Your task to perform on an android device: search for starred emails in the gmail app Image 0: 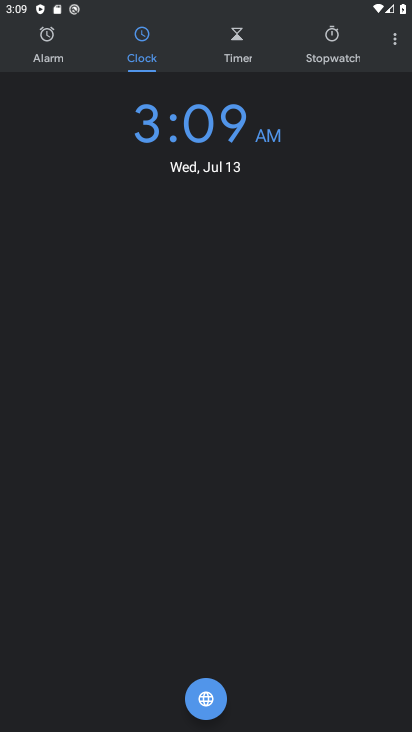
Step 0: press home button
Your task to perform on an android device: search for starred emails in the gmail app Image 1: 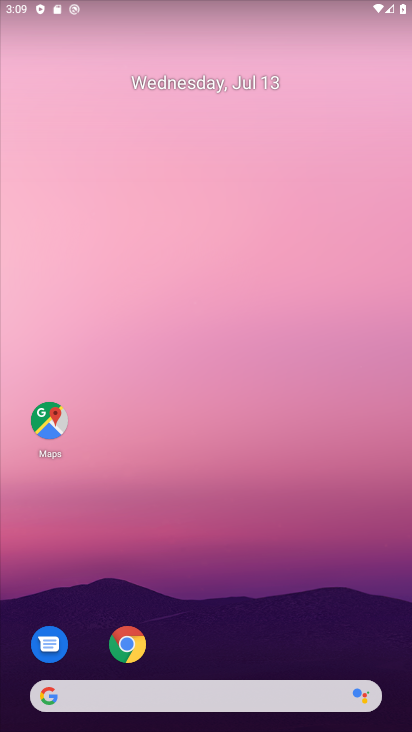
Step 1: drag from (227, 645) to (184, 250)
Your task to perform on an android device: search for starred emails in the gmail app Image 2: 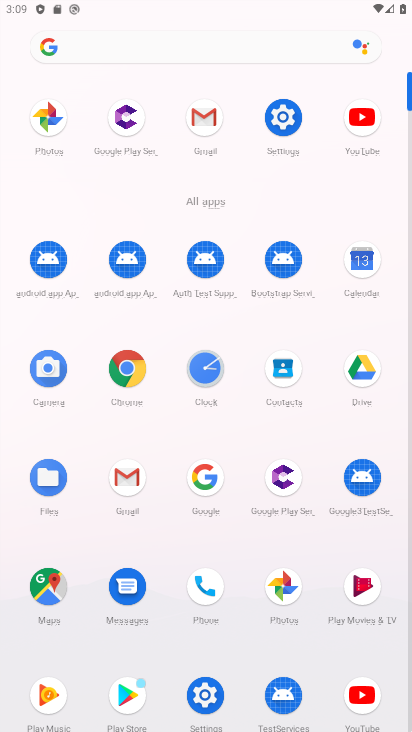
Step 2: click (196, 131)
Your task to perform on an android device: search for starred emails in the gmail app Image 3: 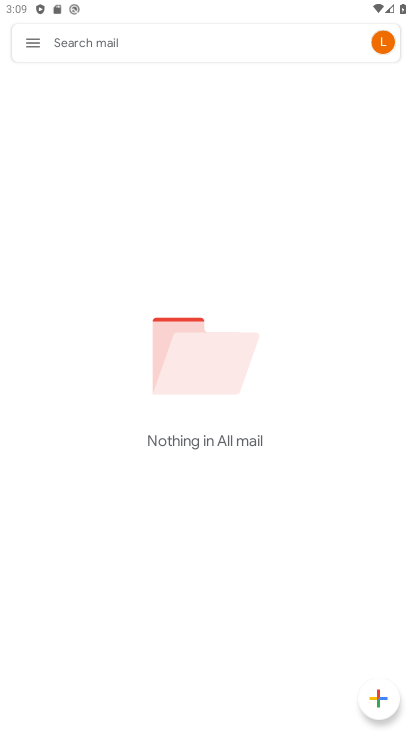
Step 3: click (39, 54)
Your task to perform on an android device: search for starred emails in the gmail app Image 4: 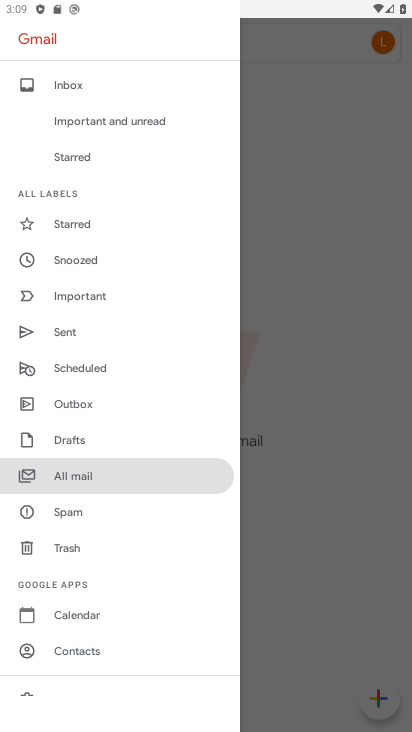
Step 4: click (106, 219)
Your task to perform on an android device: search for starred emails in the gmail app Image 5: 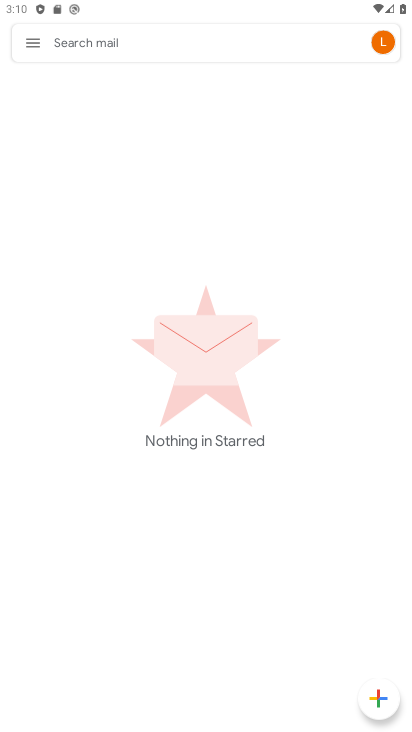
Step 5: task complete